Your task to perform on an android device: set the timer Image 0: 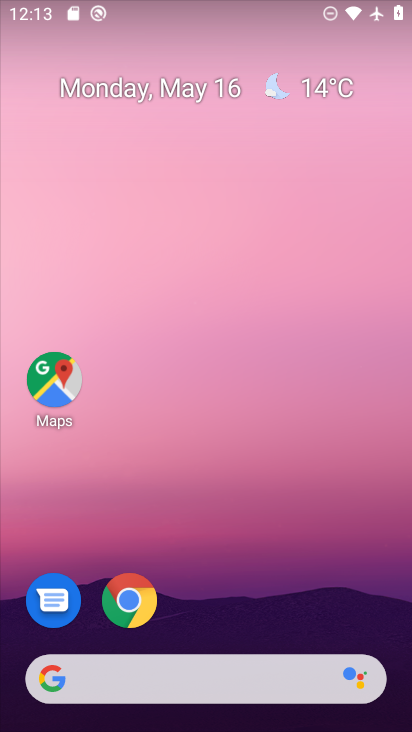
Step 0: drag from (377, 635) to (341, 141)
Your task to perform on an android device: set the timer Image 1: 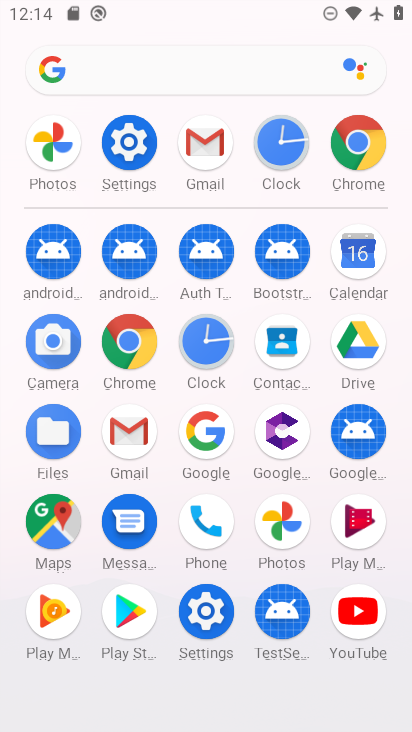
Step 1: click (210, 344)
Your task to perform on an android device: set the timer Image 2: 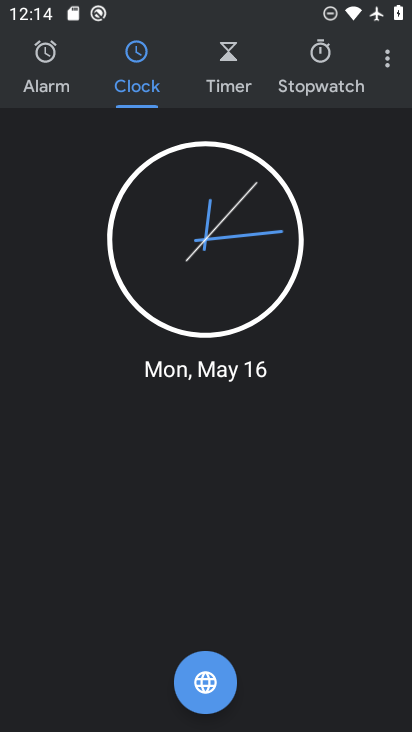
Step 2: click (226, 63)
Your task to perform on an android device: set the timer Image 3: 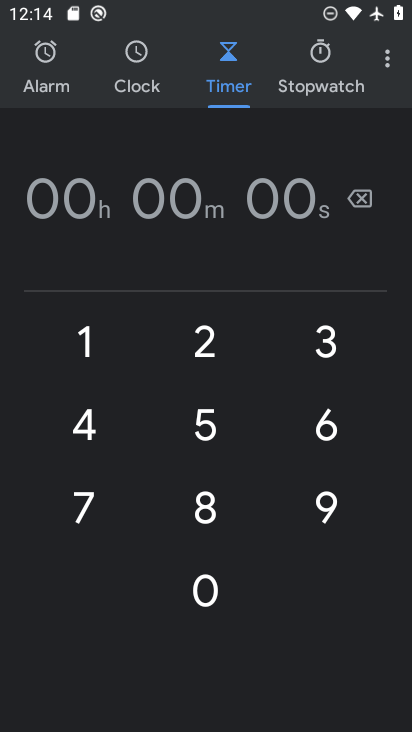
Step 3: click (82, 339)
Your task to perform on an android device: set the timer Image 4: 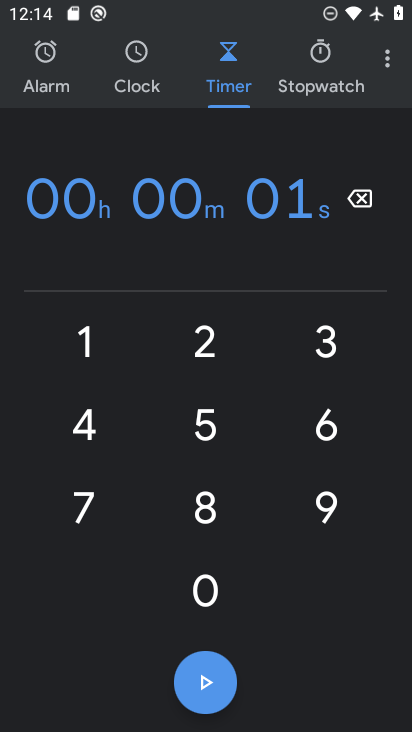
Step 4: click (330, 345)
Your task to perform on an android device: set the timer Image 5: 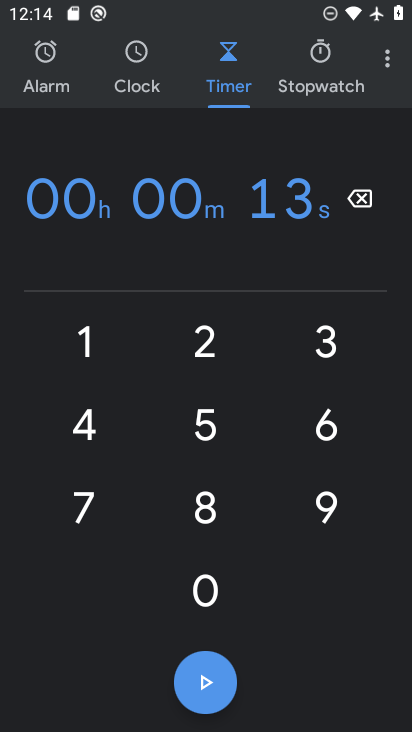
Step 5: click (216, 580)
Your task to perform on an android device: set the timer Image 6: 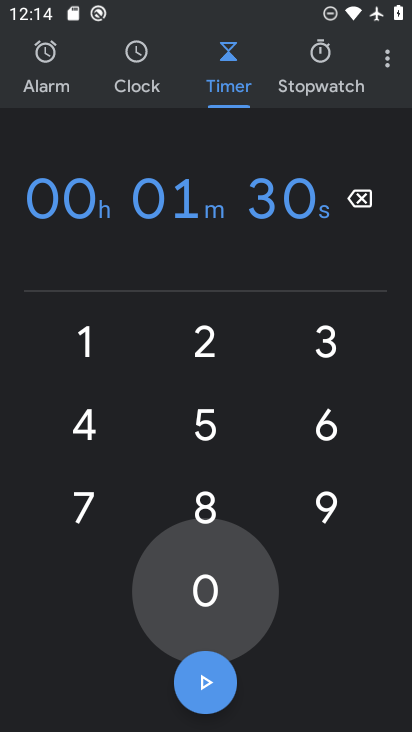
Step 6: click (216, 580)
Your task to perform on an android device: set the timer Image 7: 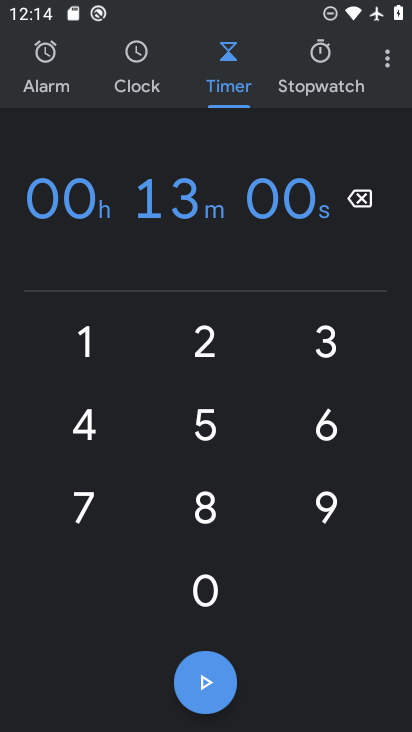
Step 7: click (216, 580)
Your task to perform on an android device: set the timer Image 8: 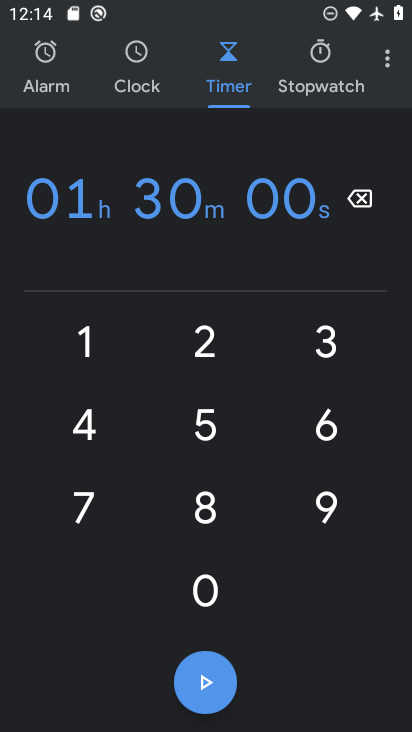
Step 8: task complete